Your task to perform on an android device: Open calendar and show me the first week of next month Image 0: 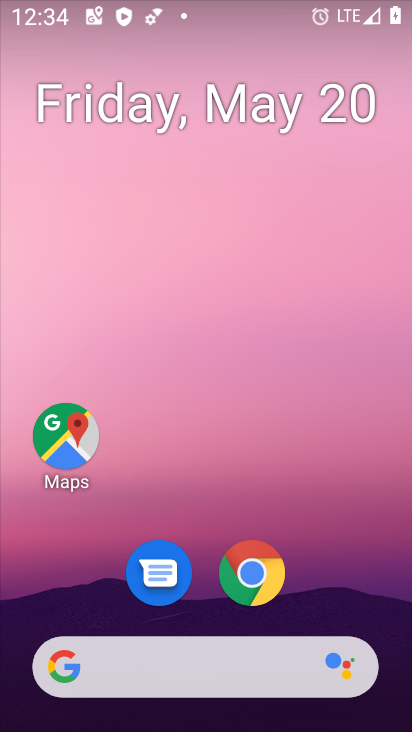
Step 0: drag from (328, 583) to (319, 146)
Your task to perform on an android device: Open calendar and show me the first week of next month Image 1: 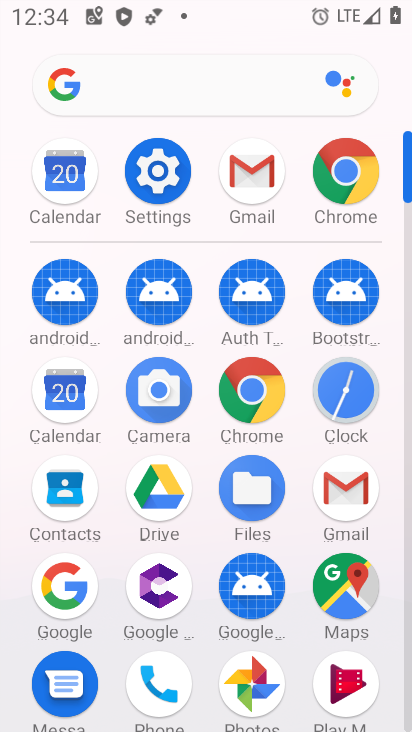
Step 1: click (74, 384)
Your task to perform on an android device: Open calendar and show me the first week of next month Image 2: 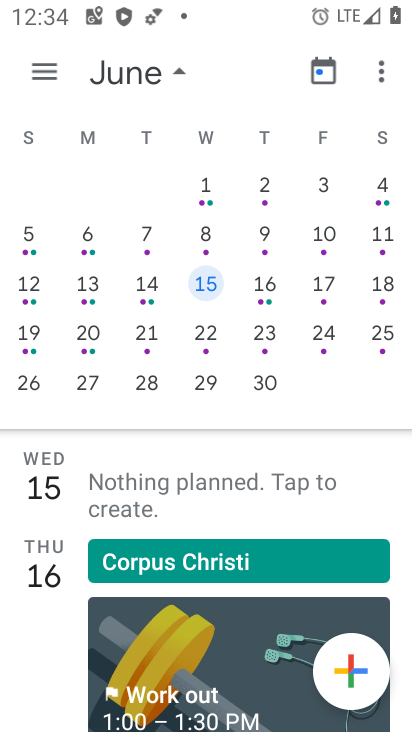
Step 2: click (329, 181)
Your task to perform on an android device: Open calendar and show me the first week of next month Image 3: 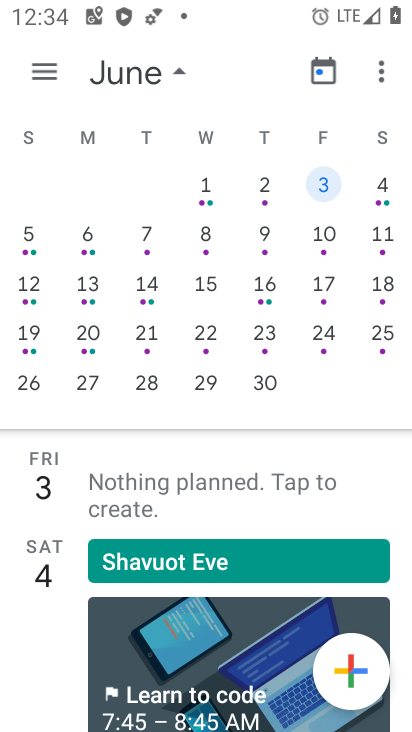
Step 3: task complete